Your task to perform on an android device: Go to Yahoo.com Image 0: 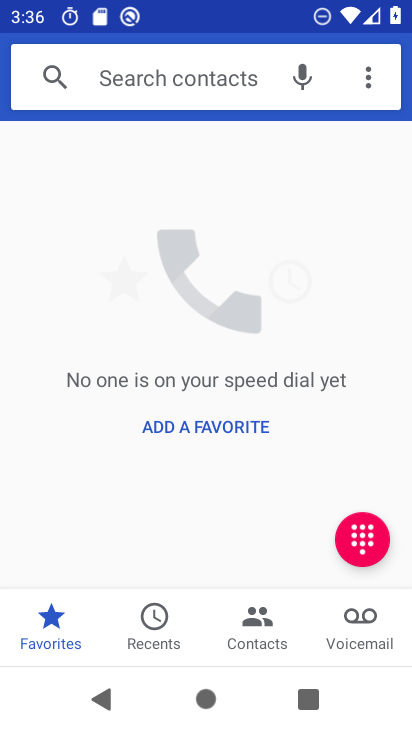
Step 0: click (364, 571)
Your task to perform on an android device: Go to Yahoo.com Image 1: 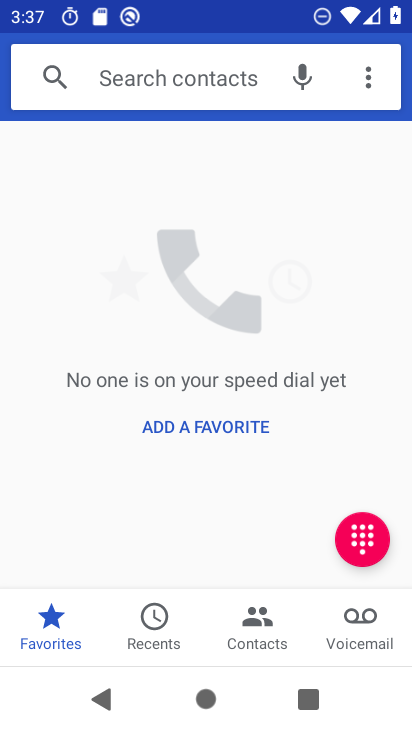
Step 1: press home button
Your task to perform on an android device: Go to Yahoo.com Image 2: 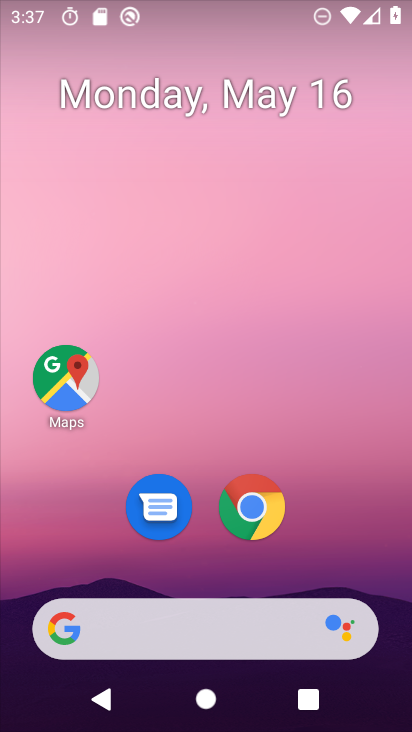
Step 2: click (271, 490)
Your task to perform on an android device: Go to Yahoo.com Image 3: 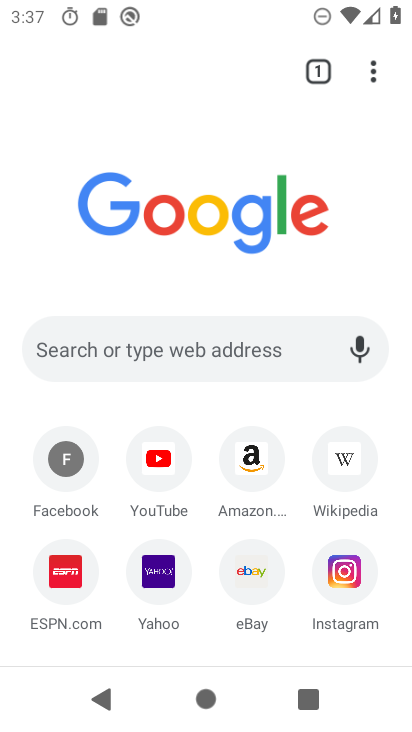
Step 3: click (149, 575)
Your task to perform on an android device: Go to Yahoo.com Image 4: 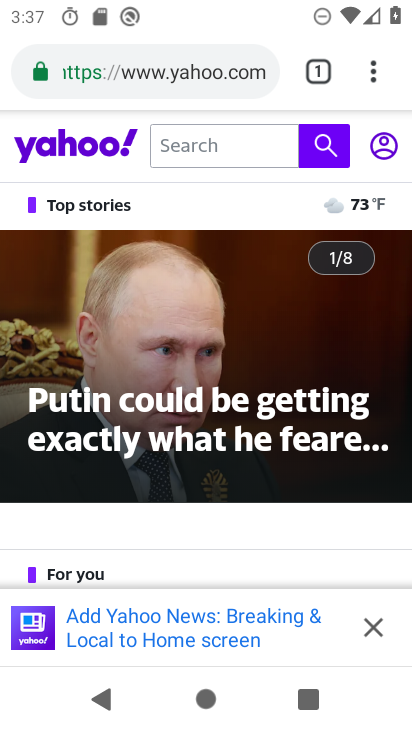
Step 4: task complete